Your task to perform on an android device: Open calendar and show me the third week of next month Image 0: 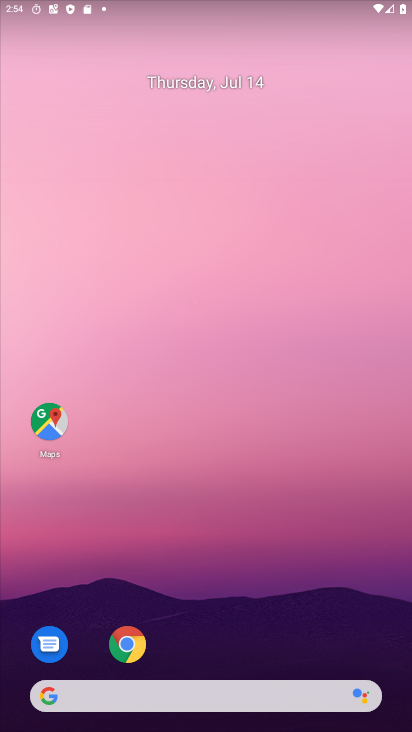
Step 0: drag from (30, 684) to (177, 85)
Your task to perform on an android device: Open calendar and show me the third week of next month Image 1: 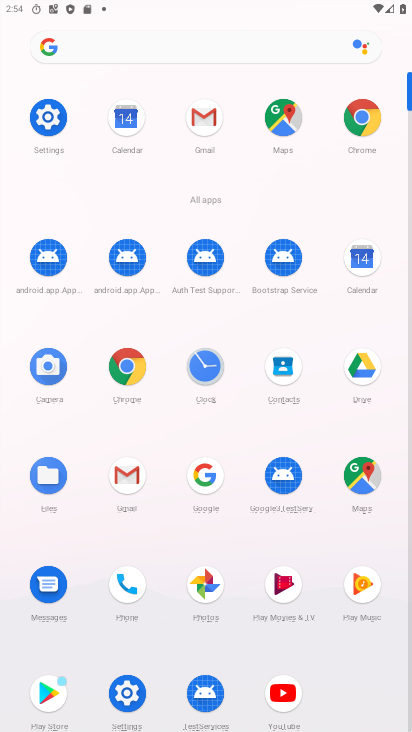
Step 1: click (358, 261)
Your task to perform on an android device: Open calendar and show me the third week of next month Image 2: 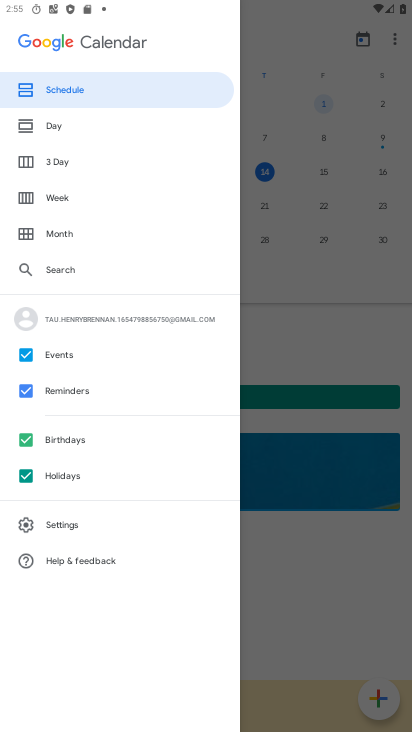
Step 2: click (376, 327)
Your task to perform on an android device: Open calendar and show me the third week of next month Image 3: 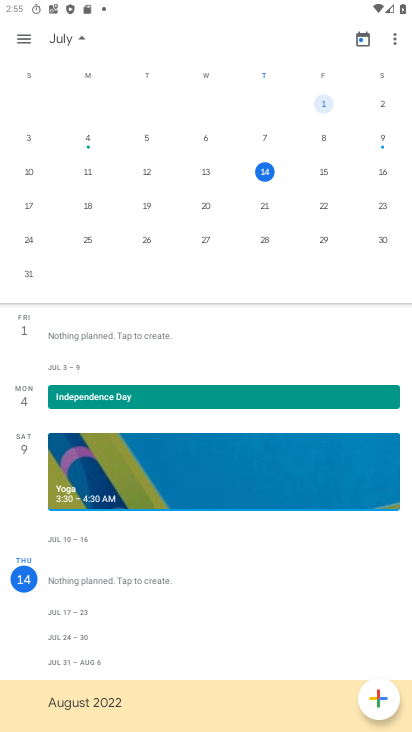
Step 3: drag from (361, 207) to (16, 338)
Your task to perform on an android device: Open calendar and show me the third week of next month Image 4: 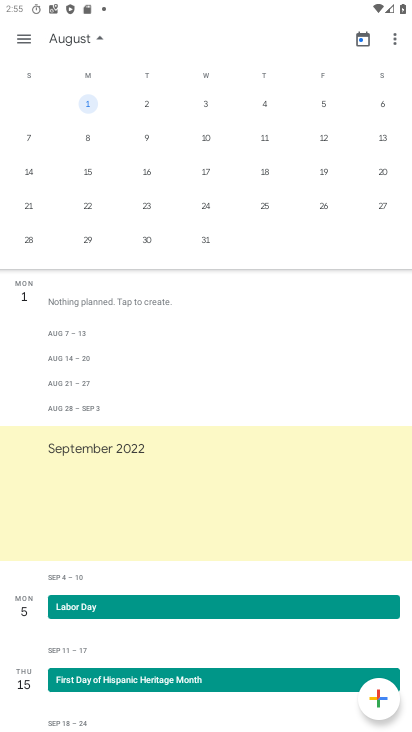
Step 4: click (89, 160)
Your task to perform on an android device: Open calendar and show me the third week of next month Image 5: 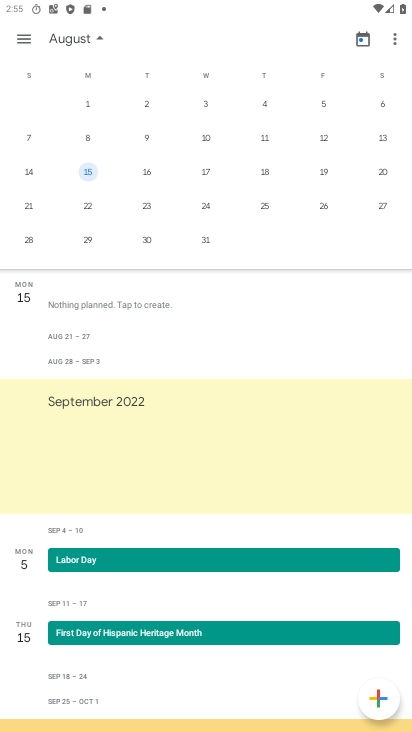
Step 5: task complete